Your task to perform on an android device: Open the calendar and show me this week's events? Image 0: 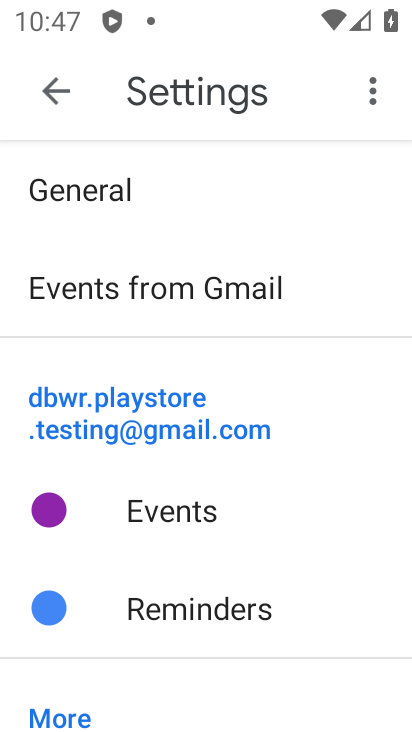
Step 0: press home button
Your task to perform on an android device: Open the calendar and show me this week's events? Image 1: 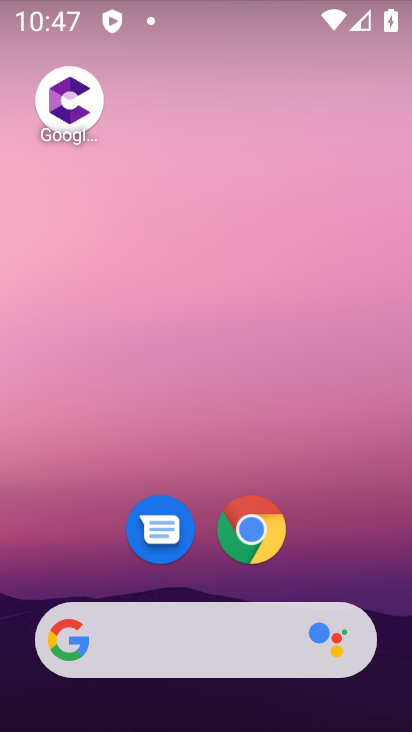
Step 1: drag from (194, 572) to (244, 100)
Your task to perform on an android device: Open the calendar and show me this week's events? Image 2: 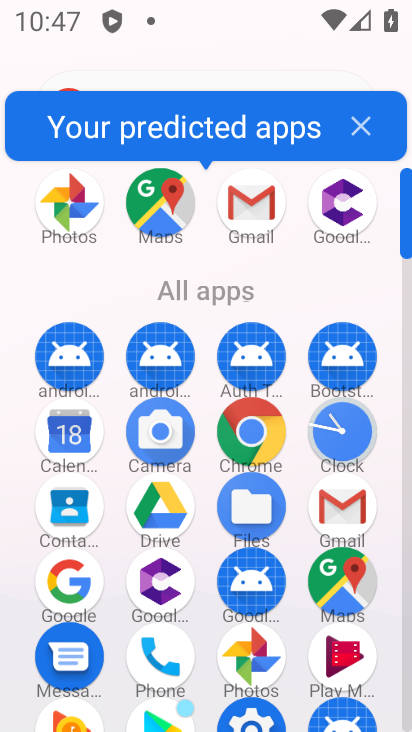
Step 2: click (79, 441)
Your task to perform on an android device: Open the calendar and show me this week's events? Image 3: 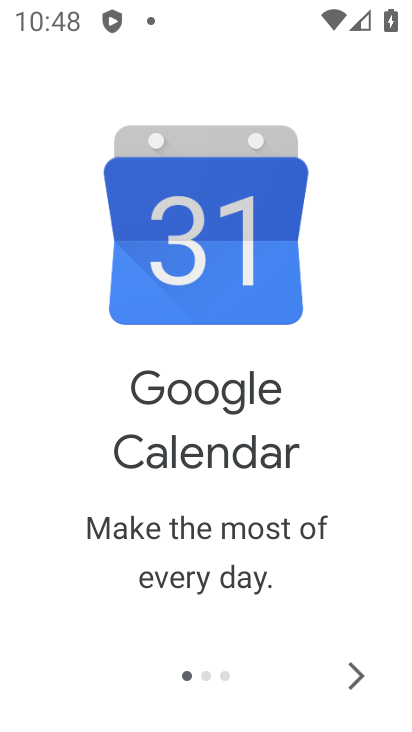
Step 3: click (358, 676)
Your task to perform on an android device: Open the calendar and show me this week's events? Image 4: 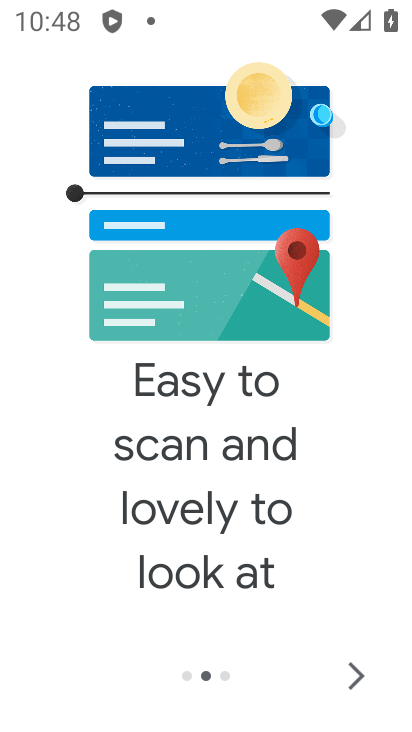
Step 4: click (358, 676)
Your task to perform on an android device: Open the calendar and show me this week's events? Image 5: 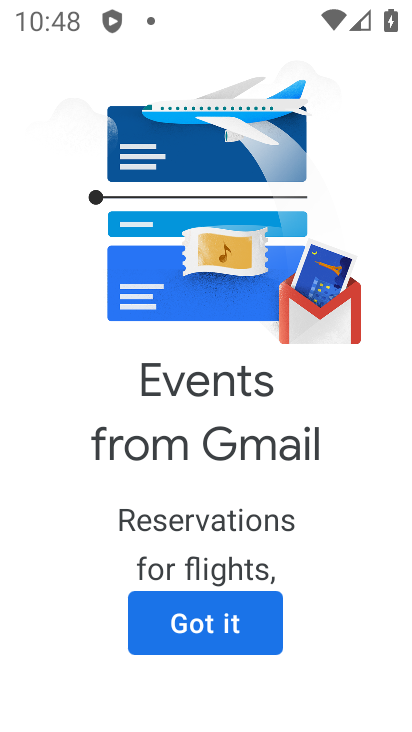
Step 5: click (209, 602)
Your task to perform on an android device: Open the calendar and show me this week's events? Image 6: 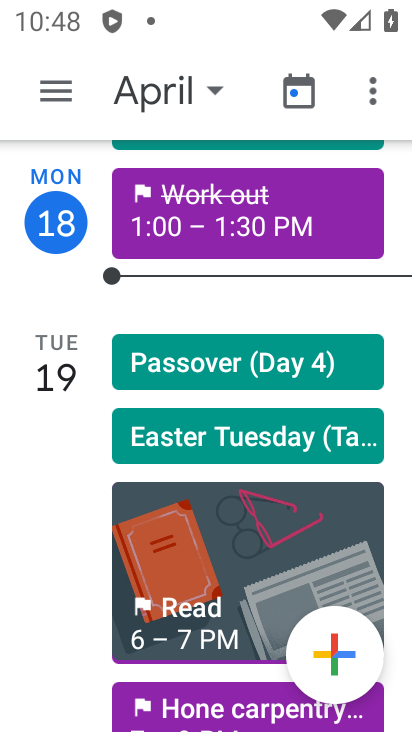
Step 6: click (217, 88)
Your task to perform on an android device: Open the calendar and show me this week's events? Image 7: 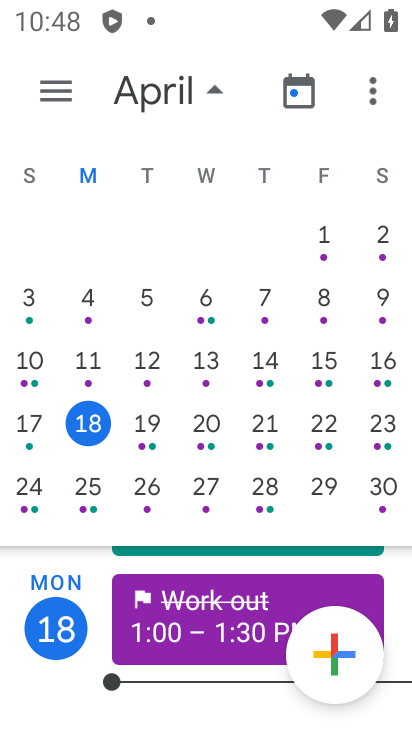
Step 7: click (267, 426)
Your task to perform on an android device: Open the calendar and show me this week's events? Image 8: 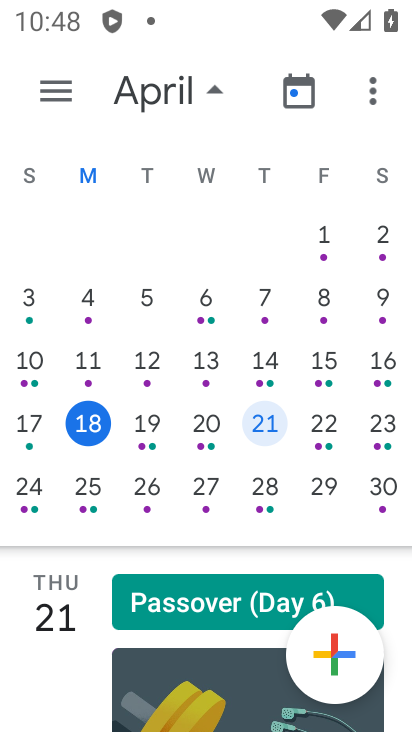
Step 8: task complete